Your task to perform on an android device: change the clock display to show seconds Image 0: 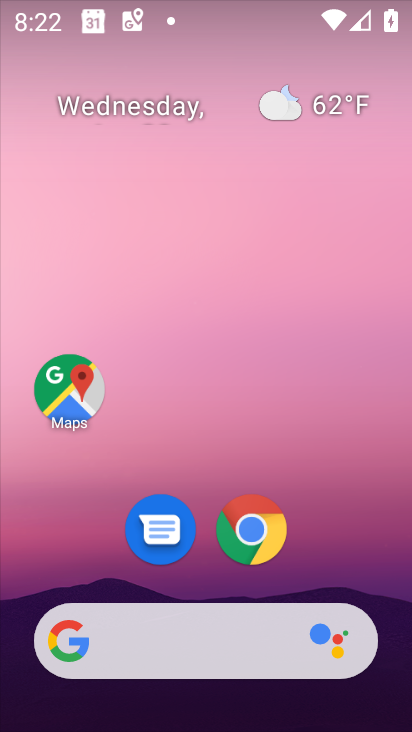
Step 0: drag from (207, 570) to (223, 185)
Your task to perform on an android device: change the clock display to show seconds Image 1: 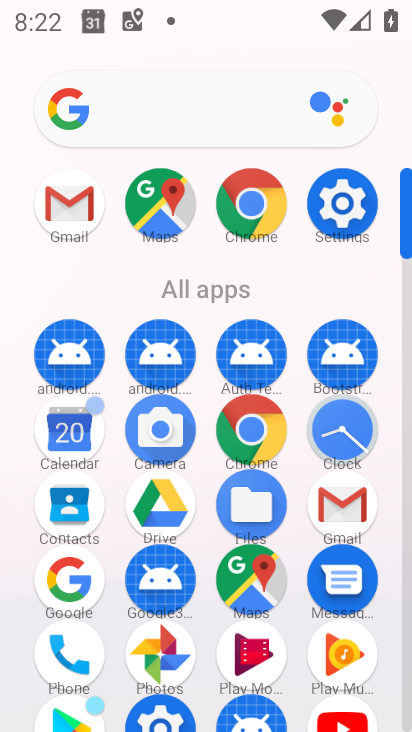
Step 1: click (336, 428)
Your task to perform on an android device: change the clock display to show seconds Image 2: 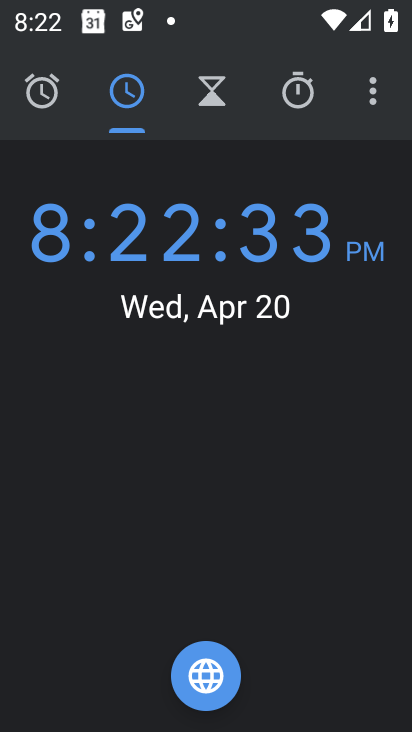
Step 2: click (380, 94)
Your task to perform on an android device: change the clock display to show seconds Image 3: 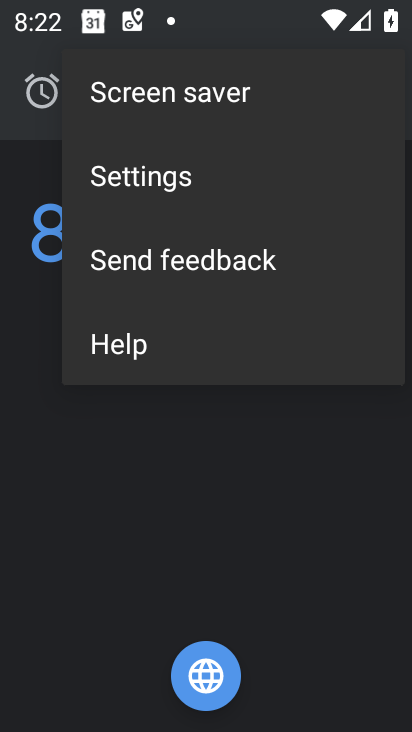
Step 3: click (119, 215)
Your task to perform on an android device: change the clock display to show seconds Image 4: 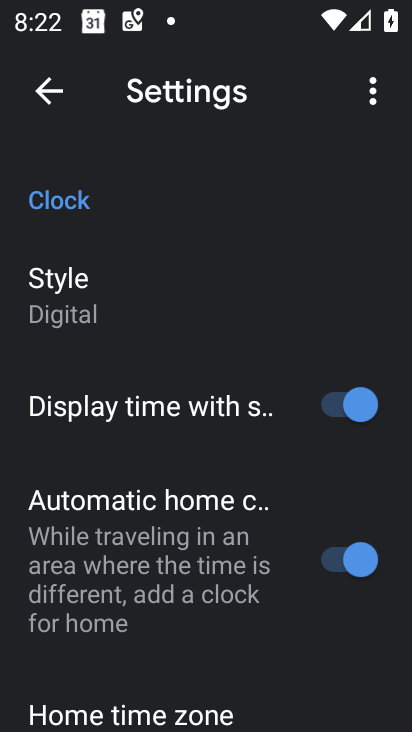
Step 4: task complete